Your task to perform on an android device: change the clock style Image 0: 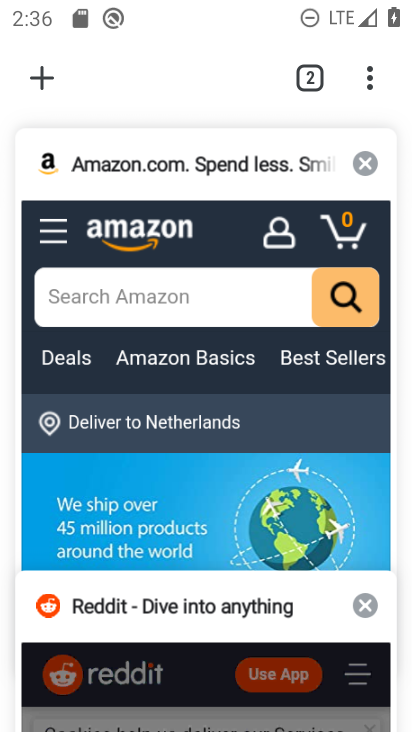
Step 0: press home button
Your task to perform on an android device: change the clock style Image 1: 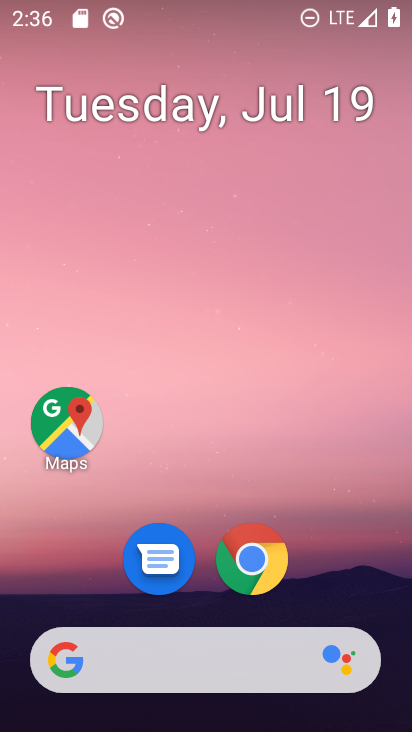
Step 1: drag from (197, 641) to (255, 76)
Your task to perform on an android device: change the clock style Image 2: 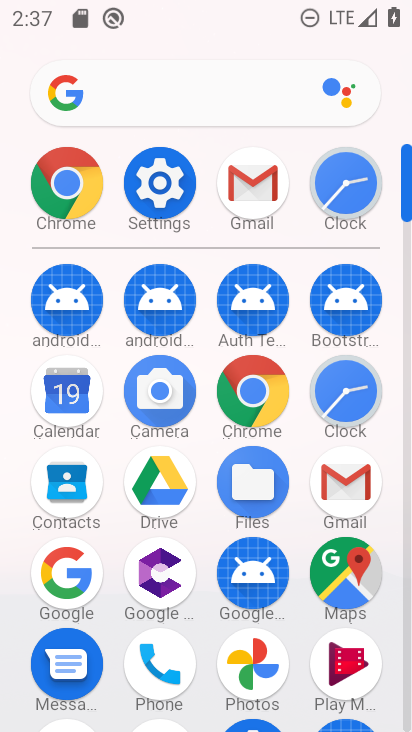
Step 2: click (348, 213)
Your task to perform on an android device: change the clock style Image 3: 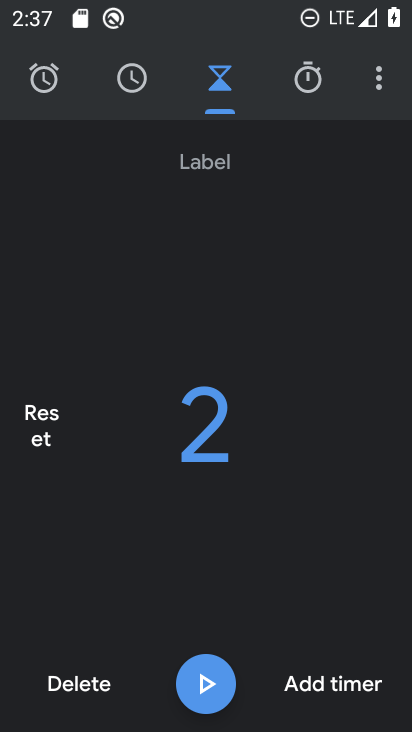
Step 3: click (377, 75)
Your task to perform on an android device: change the clock style Image 4: 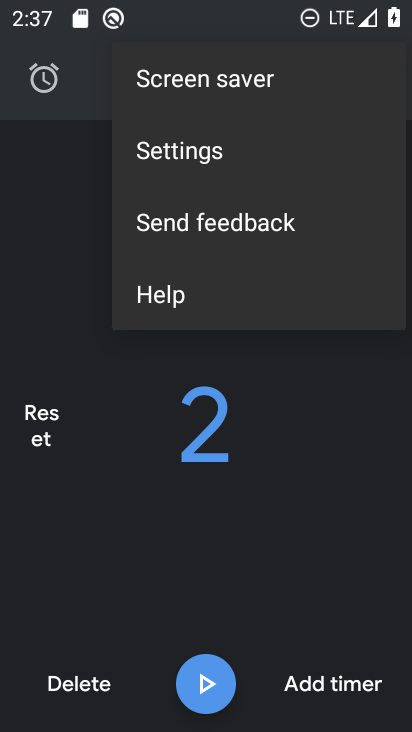
Step 4: click (230, 157)
Your task to perform on an android device: change the clock style Image 5: 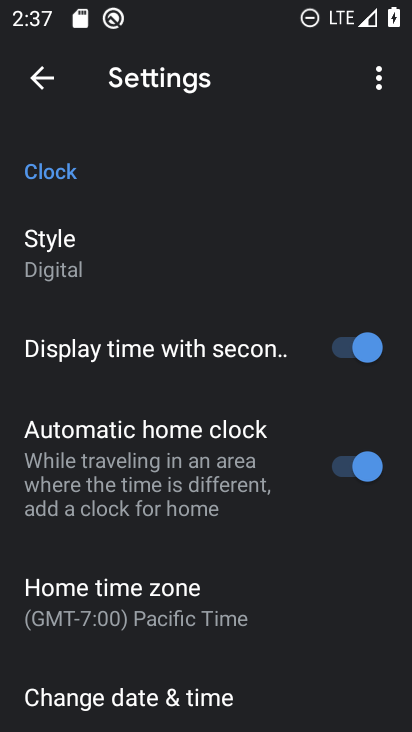
Step 5: click (113, 242)
Your task to perform on an android device: change the clock style Image 6: 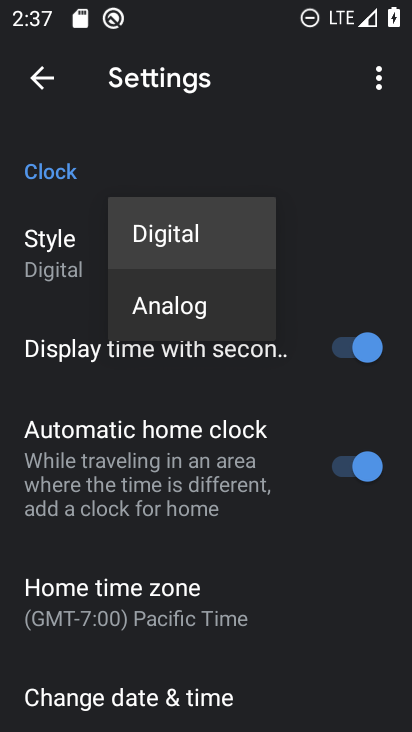
Step 6: click (220, 318)
Your task to perform on an android device: change the clock style Image 7: 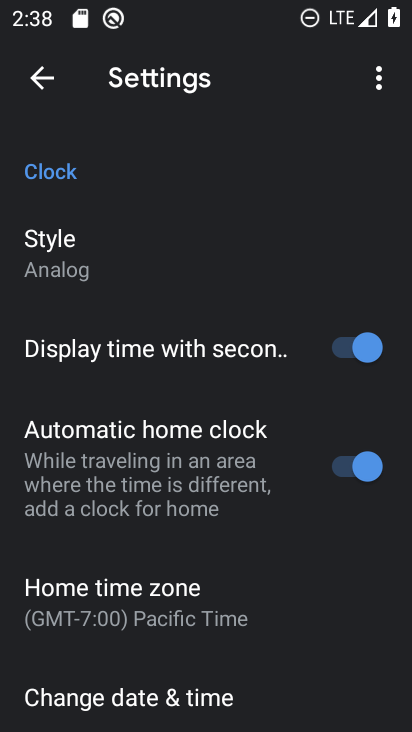
Step 7: task complete